Your task to perform on an android device: check battery use Image 0: 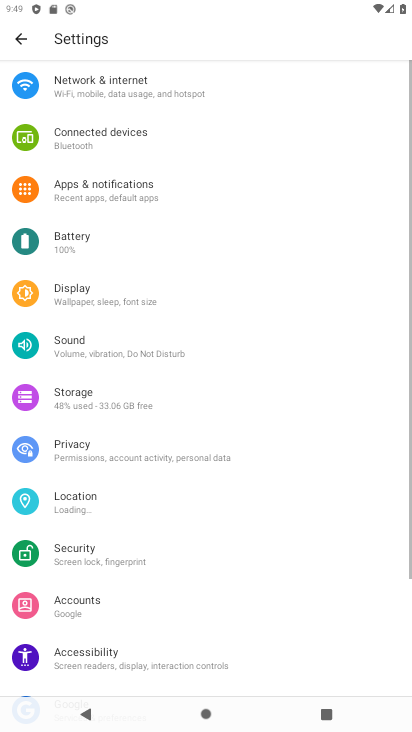
Step 0: click (105, 241)
Your task to perform on an android device: check battery use Image 1: 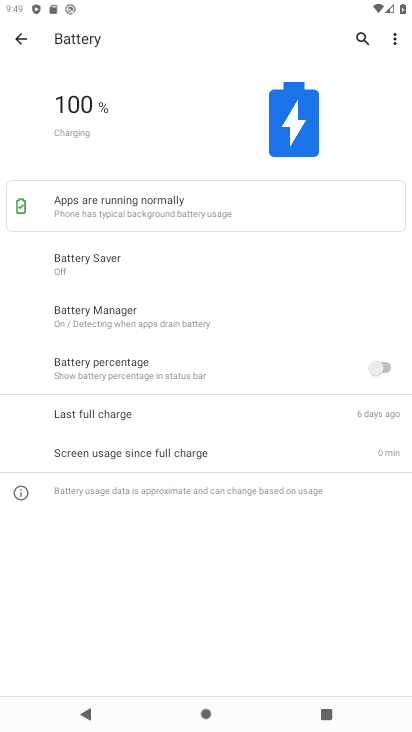
Step 1: click (390, 29)
Your task to perform on an android device: check battery use Image 2: 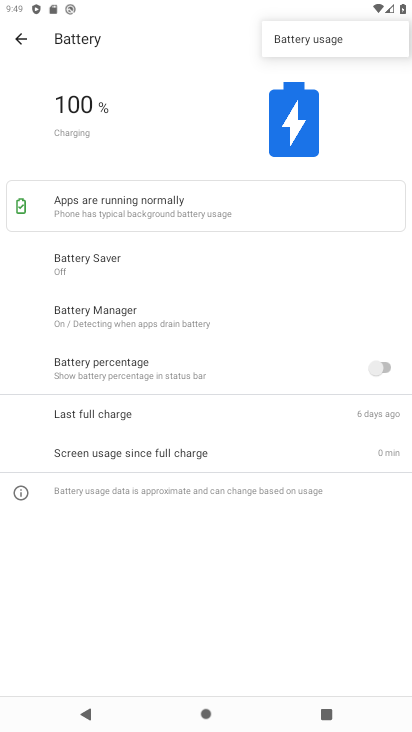
Step 2: click (282, 35)
Your task to perform on an android device: check battery use Image 3: 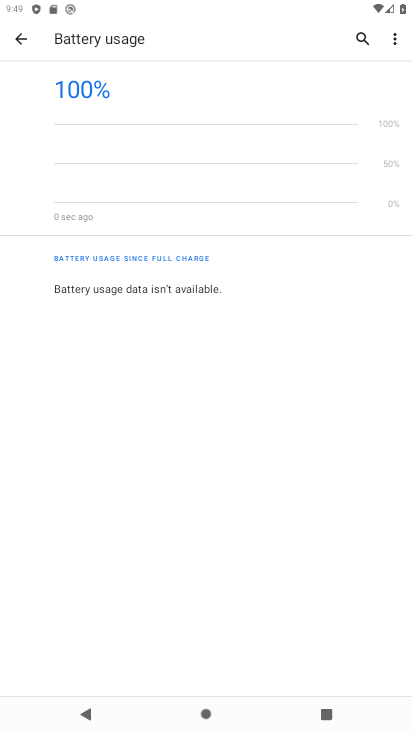
Step 3: task complete